Your task to perform on an android device: turn off smart reply in the gmail app Image 0: 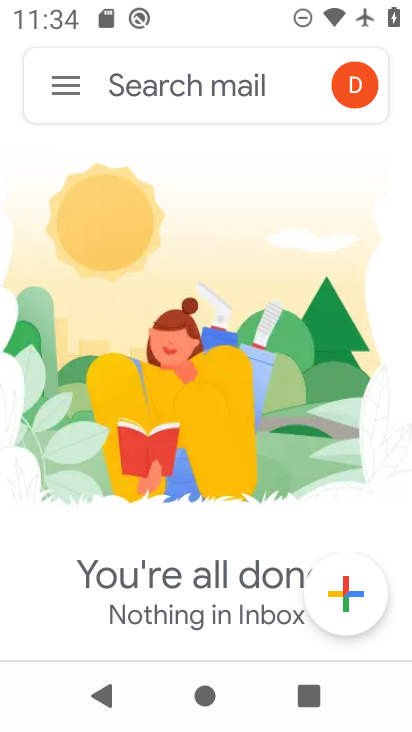
Step 0: click (59, 81)
Your task to perform on an android device: turn off smart reply in the gmail app Image 1: 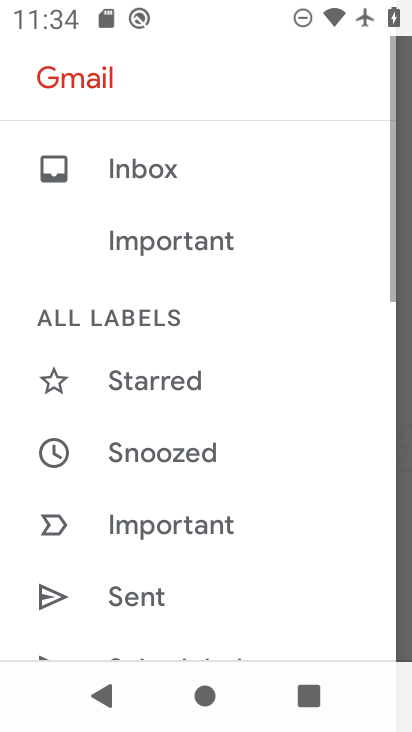
Step 1: drag from (187, 554) to (220, 141)
Your task to perform on an android device: turn off smart reply in the gmail app Image 2: 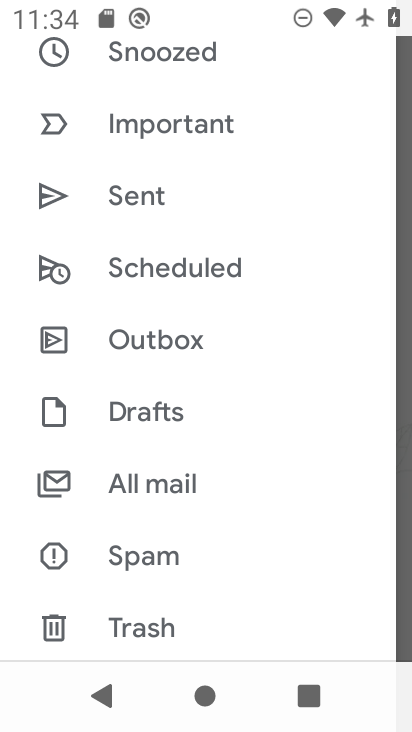
Step 2: drag from (170, 569) to (200, 182)
Your task to perform on an android device: turn off smart reply in the gmail app Image 3: 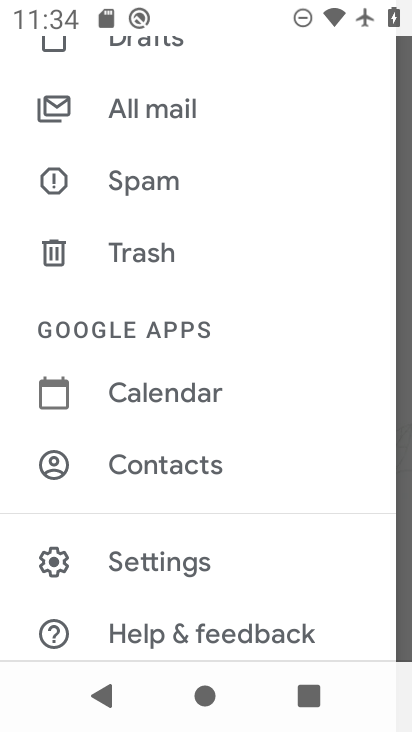
Step 3: click (137, 565)
Your task to perform on an android device: turn off smart reply in the gmail app Image 4: 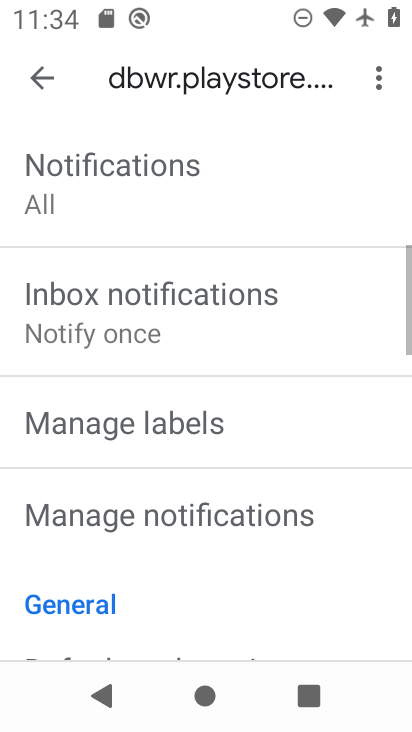
Step 4: drag from (229, 525) to (224, 175)
Your task to perform on an android device: turn off smart reply in the gmail app Image 5: 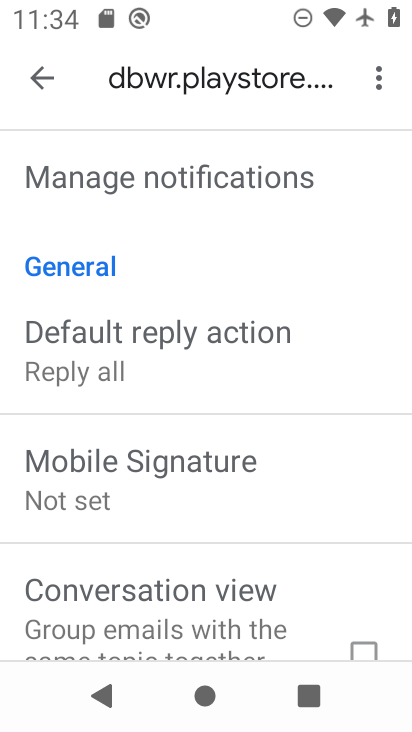
Step 5: drag from (202, 563) to (238, 260)
Your task to perform on an android device: turn off smart reply in the gmail app Image 6: 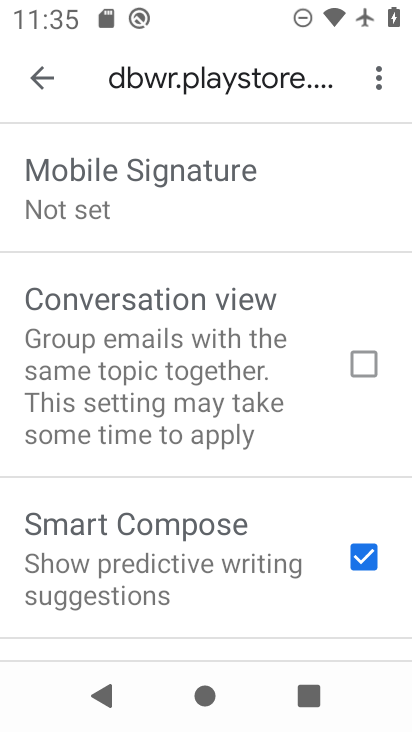
Step 6: click (358, 556)
Your task to perform on an android device: turn off smart reply in the gmail app Image 7: 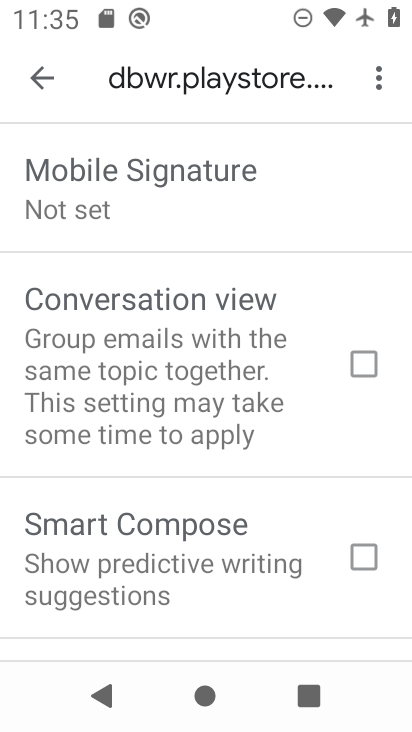
Step 7: click (358, 557)
Your task to perform on an android device: turn off smart reply in the gmail app Image 8: 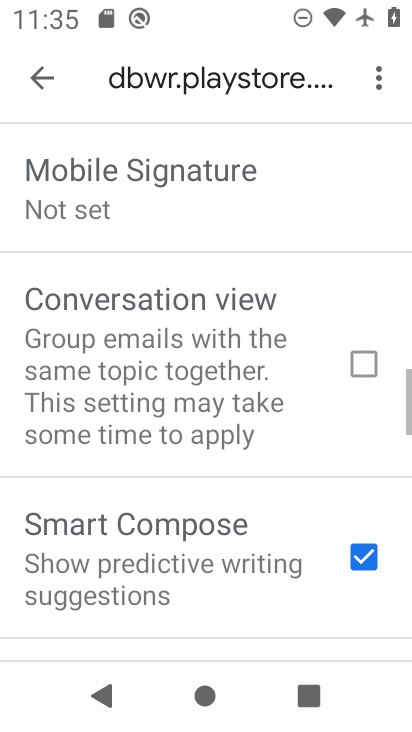
Step 8: task complete